Your task to perform on an android device: delete location history Image 0: 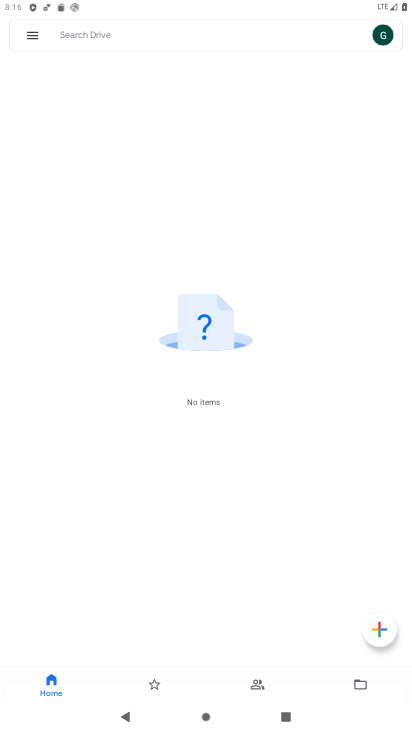
Step 0: press home button
Your task to perform on an android device: delete location history Image 1: 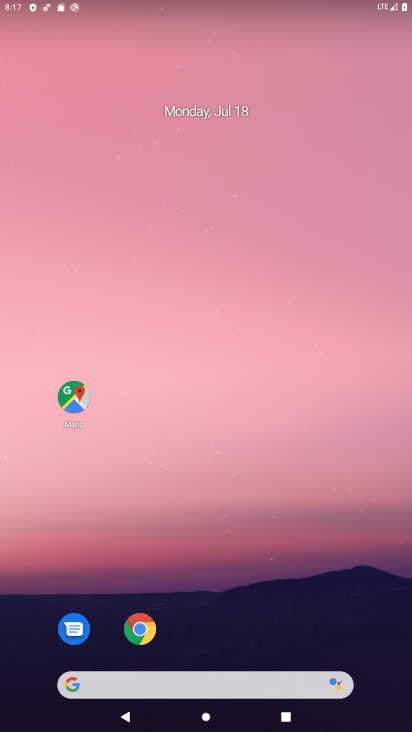
Step 1: drag from (224, 646) to (271, 125)
Your task to perform on an android device: delete location history Image 2: 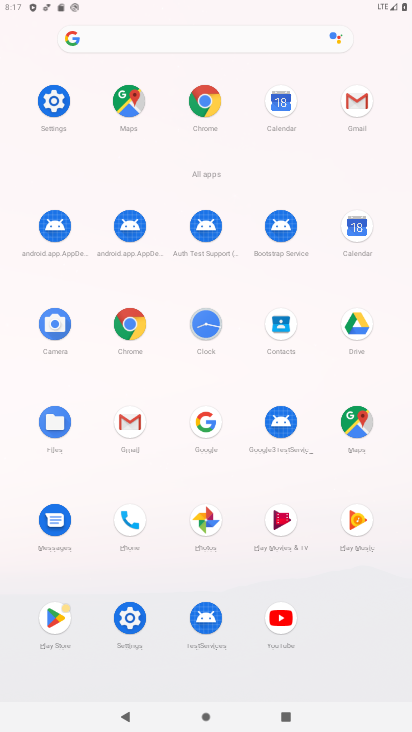
Step 2: click (354, 429)
Your task to perform on an android device: delete location history Image 3: 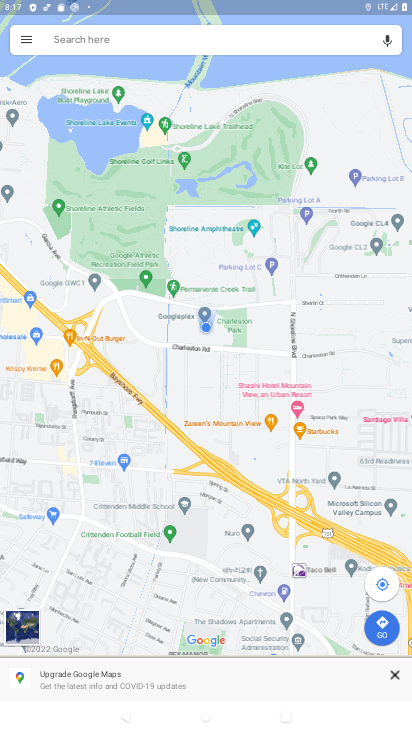
Step 3: click (29, 44)
Your task to perform on an android device: delete location history Image 4: 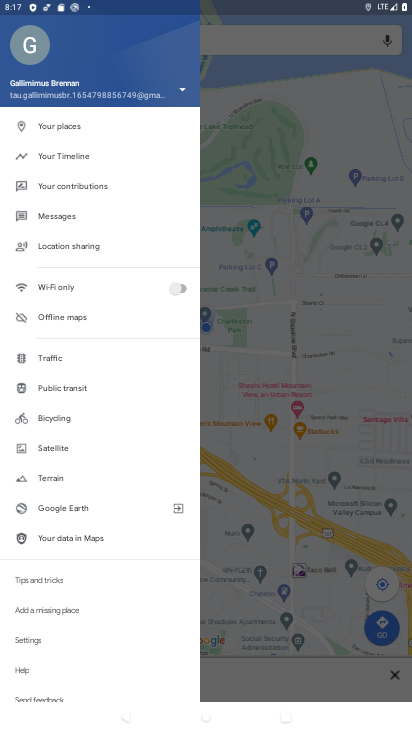
Step 4: click (76, 156)
Your task to perform on an android device: delete location history Image 5: 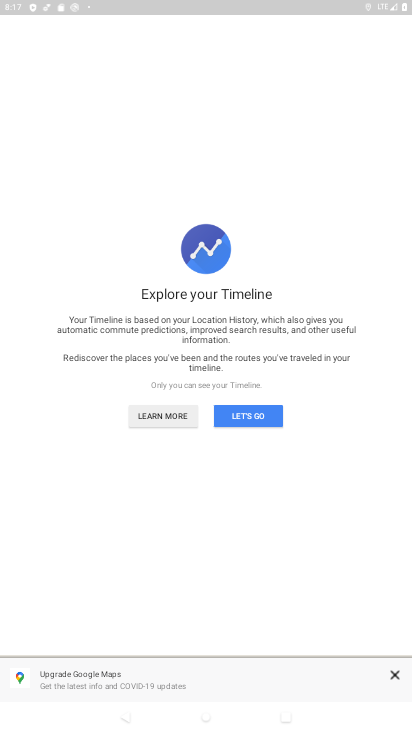
Step 5: click (259, 416)
Your task to perform on an android device: delete location history Image 6: 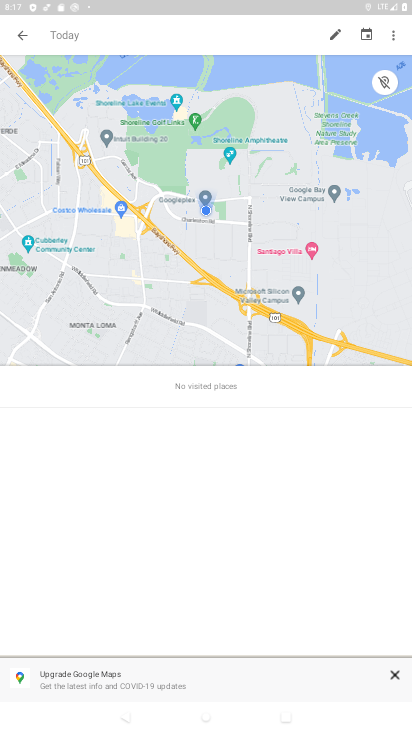
Step 6: click (399, 41)
Your task to perform on an android device: delete location history Image 7: 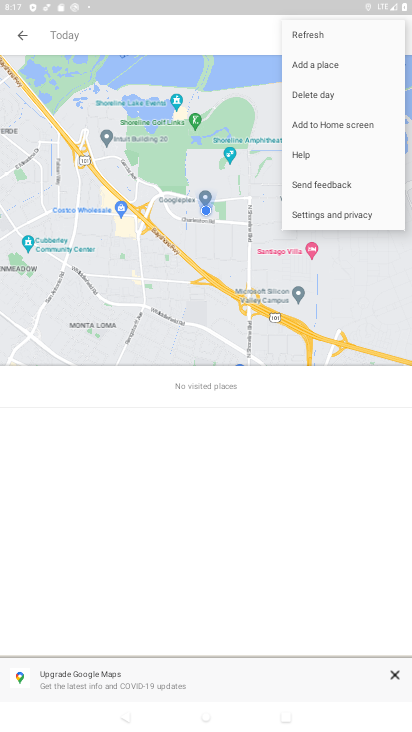
Step 7: click (323, 213)
Your task to perform on an android device: delete location history Image 8: 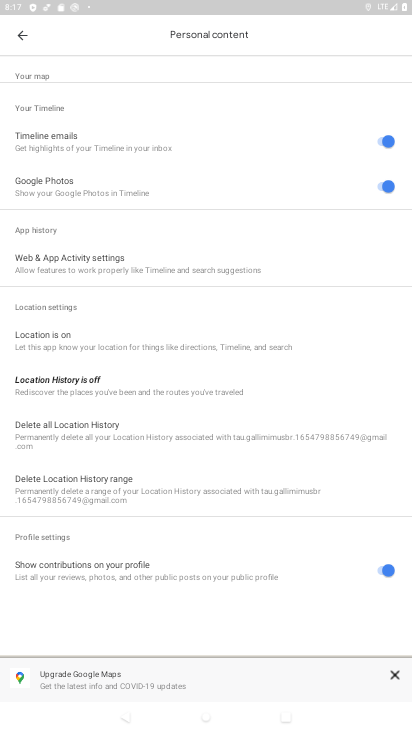
Step 8: click (106, 427)
Your task to perform on an android device: delete location history Image 9: 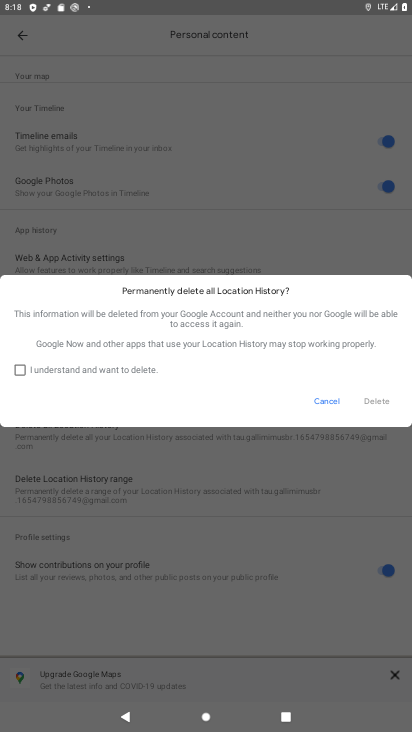
Step 9: click (50, 374)
Your task to perform on an android device: delete location history Image 10: 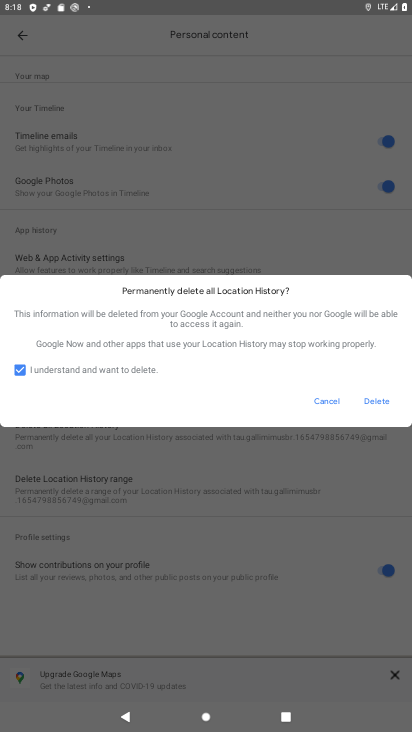
Step 10: click (376, 403)
Your task to perform on an android device: delete location history Image 11: 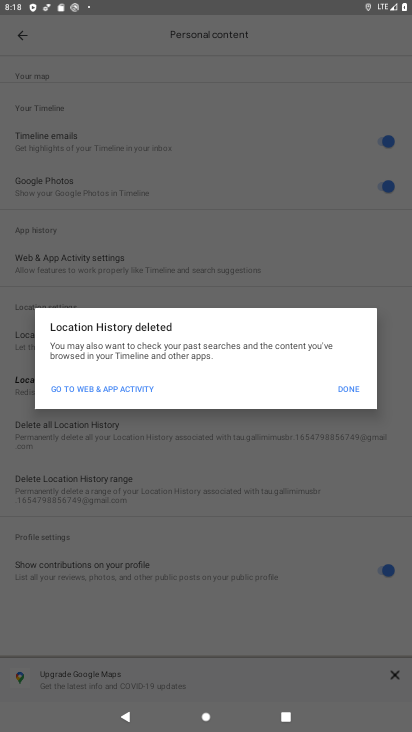
Step 11: click (340, 386)
Your task to perform on an android device: delete location history Image 12: 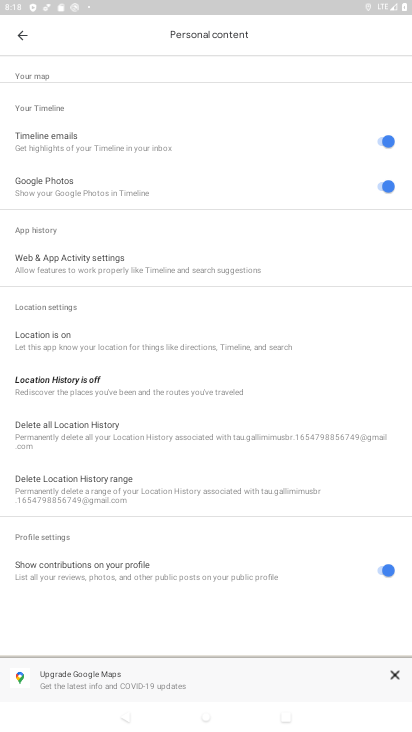
Step 12: task complete